Your task to perform on an android device: toggle show notifications on the lock screen Image 0: 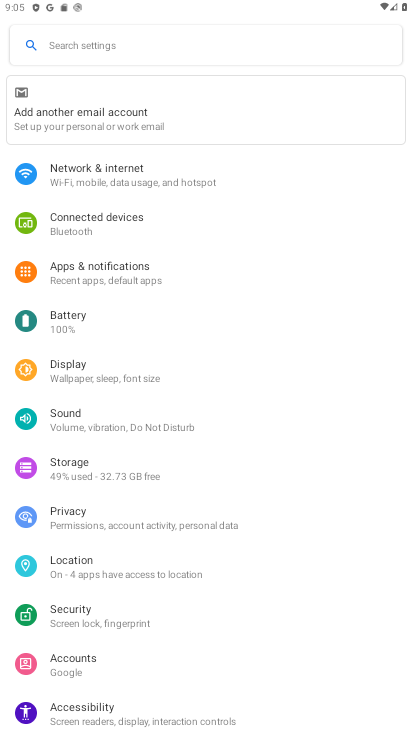
Step 0: click (110, 270)
Your task to perform on an android device: toggle show notifications on the lock screen Image 1: 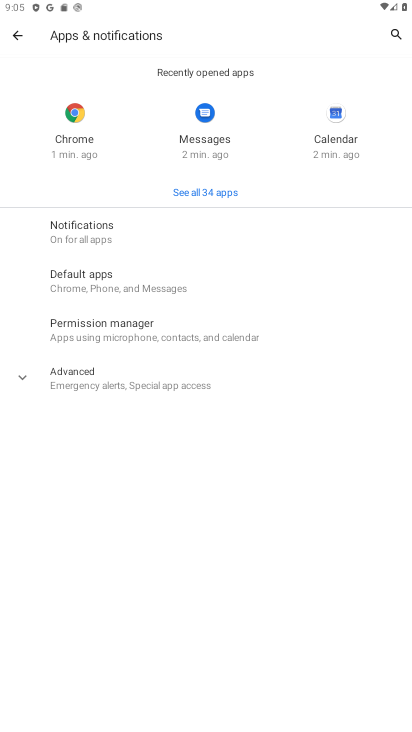
Step 1: click (119, 231)
Your task to perform on an android device: toggle show notifications on the lock screen Image 2: 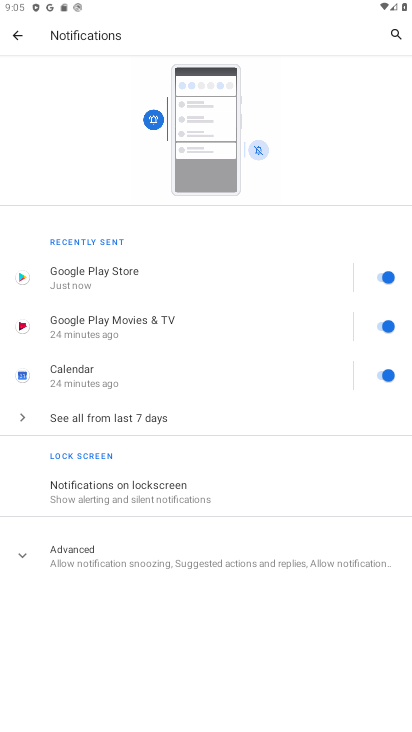
Step 2: click (117, 475)
Your task to perform on an android device: toggle show notifications on the lock screen Image 3: 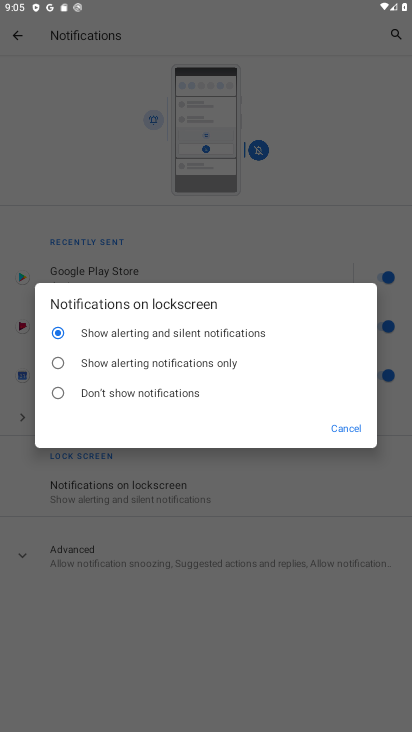
Step 3: click (139, 395)
Your task to perform on an android device: toggle show notifications on the lock screen Image 4: 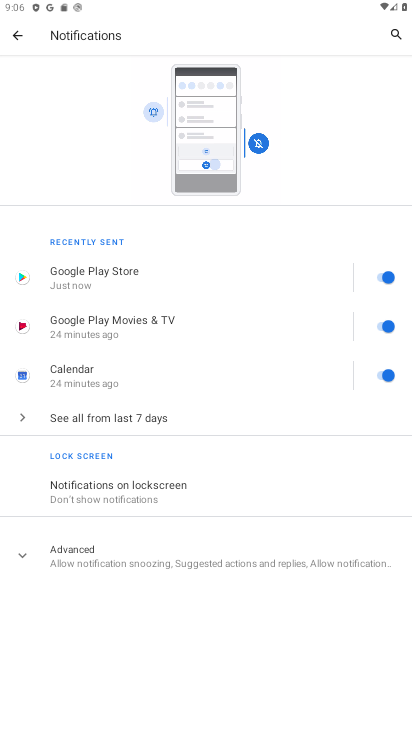
Step 4: task complete